Your task to perform on an android device: Show me productivity apps on the Play Store Image 0: 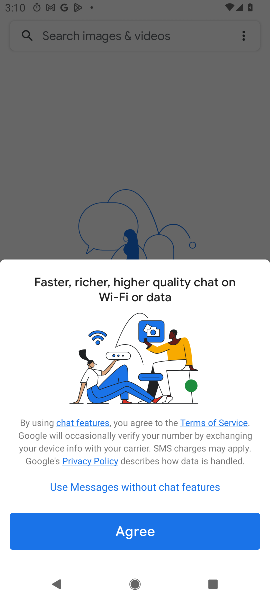
Step 0: press home button
Your task to perform on an android device: Show me productivity apps on the Play Store Image 1: 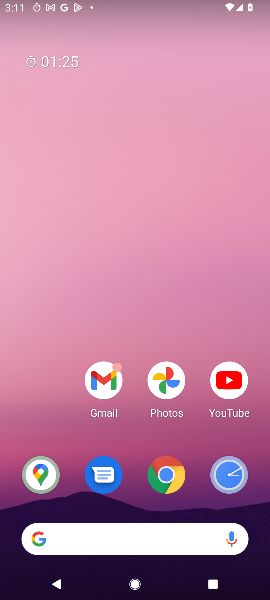
Step 1: drag from (39, 435) to (52, 111)
Your task to perform on an android device: Show me productivity apps on the Play Store Image 2: 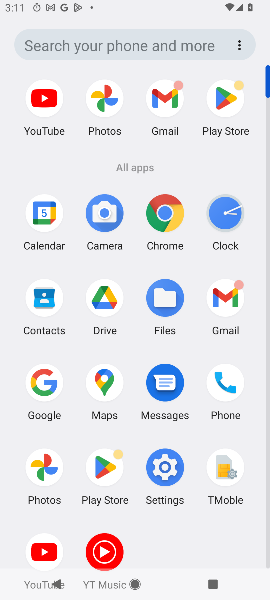
Step 2: click (102, 467)
Your task to perform on an android device: Show me productivity apps on the Play Store Image 3: 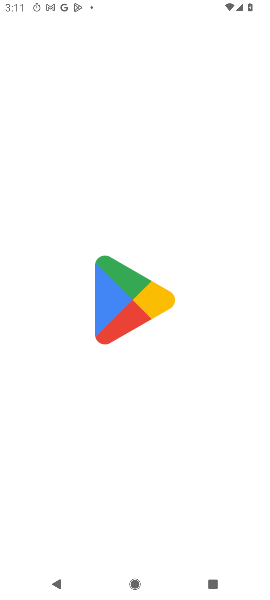
Step 3: task complete